Your task to perform on an android device: Search for pizza restaurants on Maps Image 0: 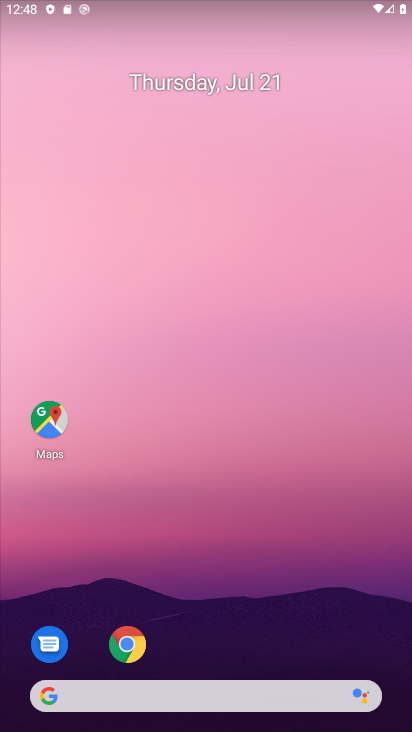
Step 0: press home button
Your task to perform on an android device: Search for pizza restaurants on Maps Image 1: 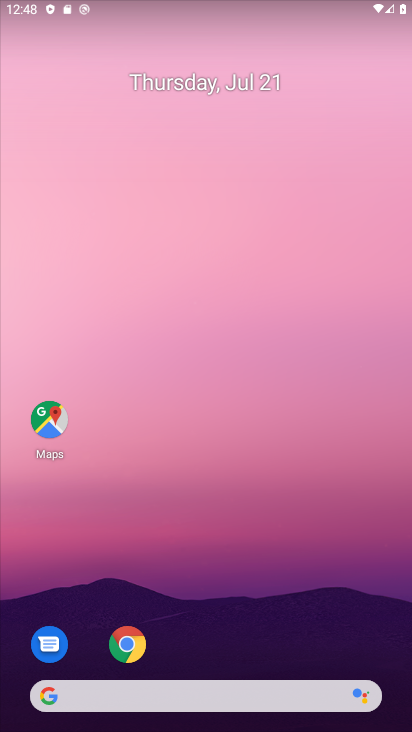
Step 1: click (32, 414)
Your task to perform on an android device: Search for pizza restaurants on Maps Image 2: 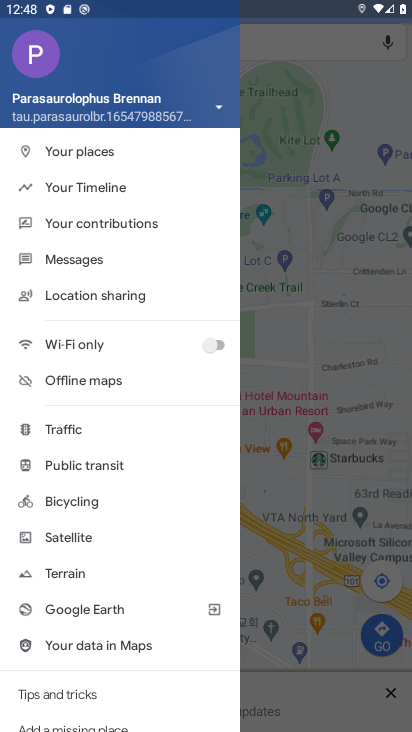
Step 2: click (80, 187)
Your task to perform on an android device: Search for pizza restaurants on Maps Image 3: 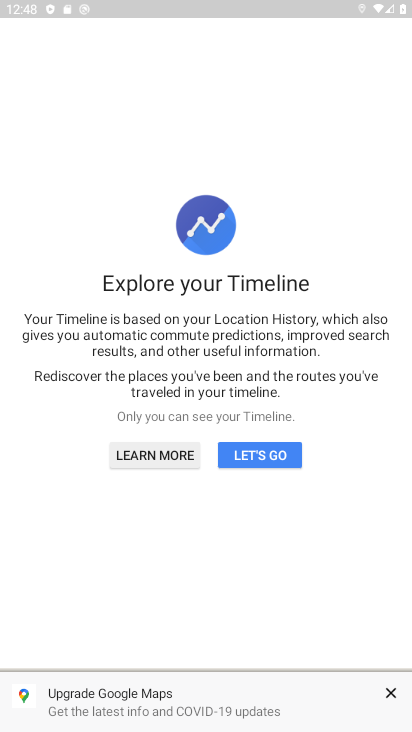
Step 3: click (239, 452)
Your task to perform on an android device: Search for pizza restaurants on Maps Image 4: 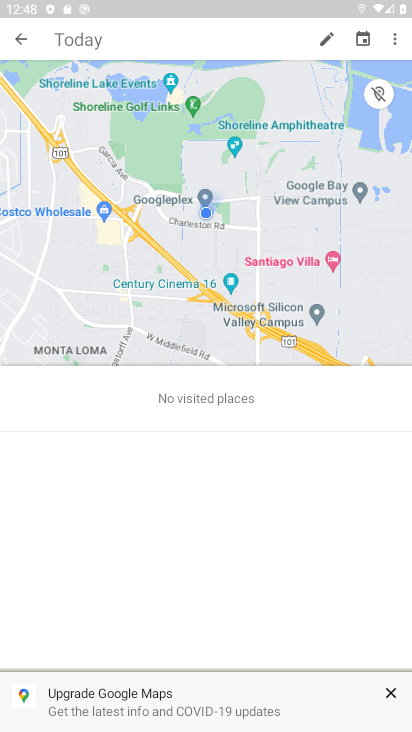
Step 4: click (13, 32)
Your task to perform on an android device: Search for pizza restaurants on Maps Image 5: 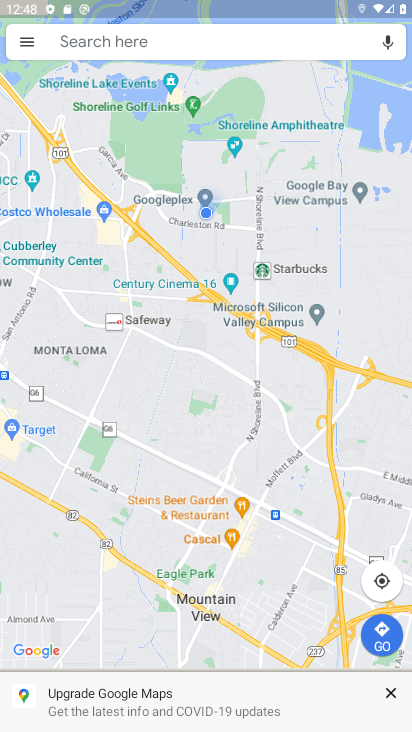
Step 5: click (151, 33)
Your task to perform on an android device: Search for pizza restaurants on Maps Image 6: 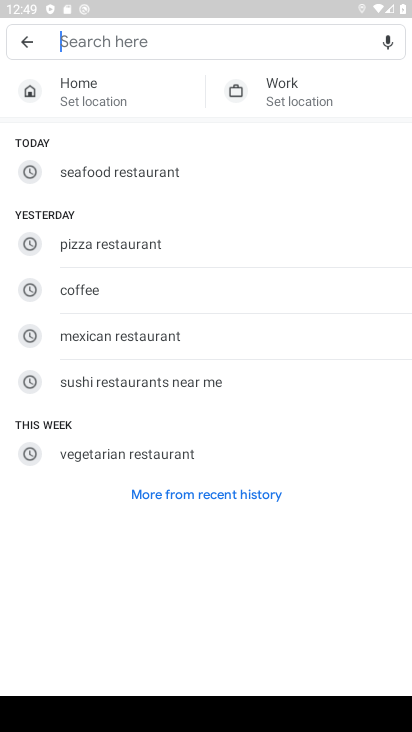
Step 6: type " pizza restaurants "
Your task to perform on an android device: Search for pizza restaurants on Maps Image 7: 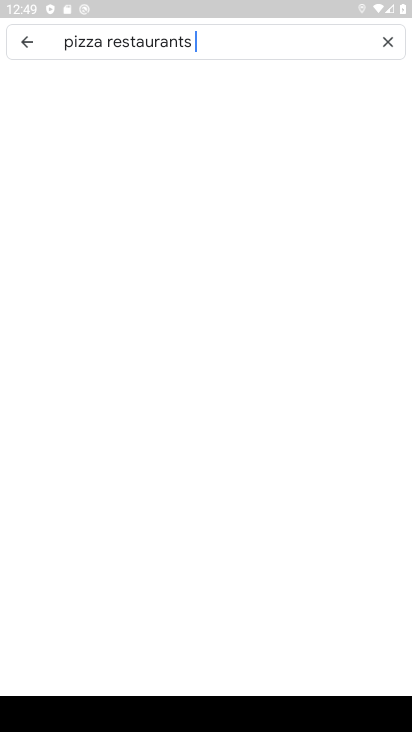
Step 7: type ""
Your task to perform on an android device: Search for pizza restaurants on Maps Image 8: 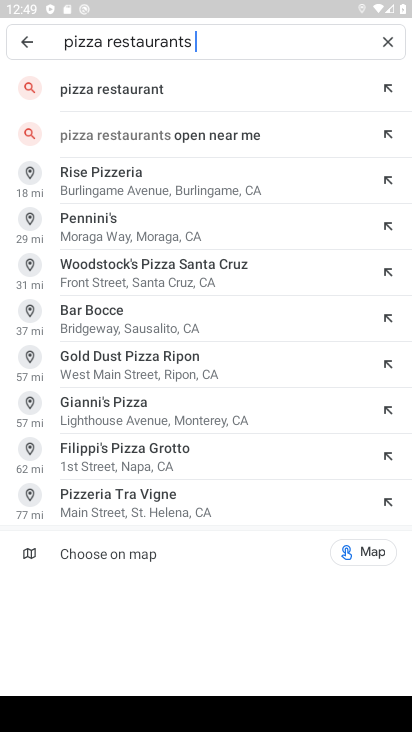
Step 8: click (133, 97)
Your task to perform on an android device: Search for pizza restaurants on Maps Image 9: 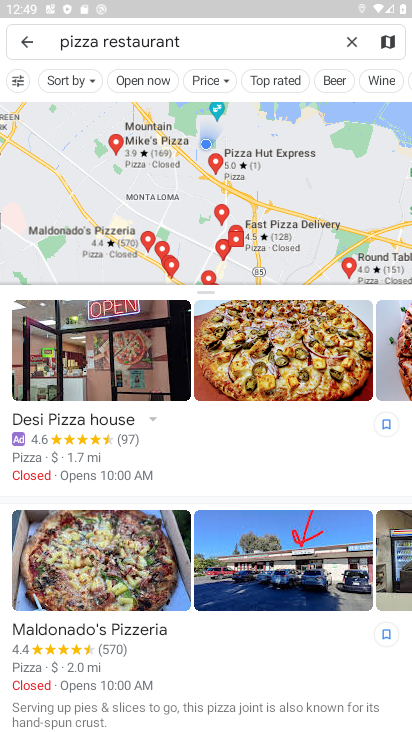
Step 9: task complete